Your task to perform on an android device: When is my next appointment? Image 0: 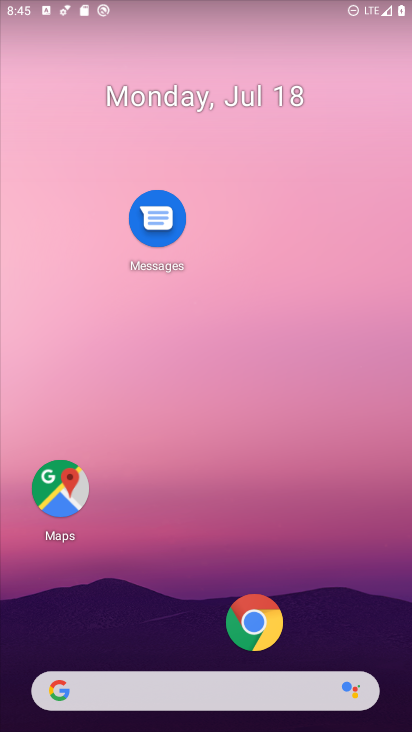
Step 0: drag from (267, 593) to (269, 319)
Your task to perform on an android device: When is my next appointment? Image 1: 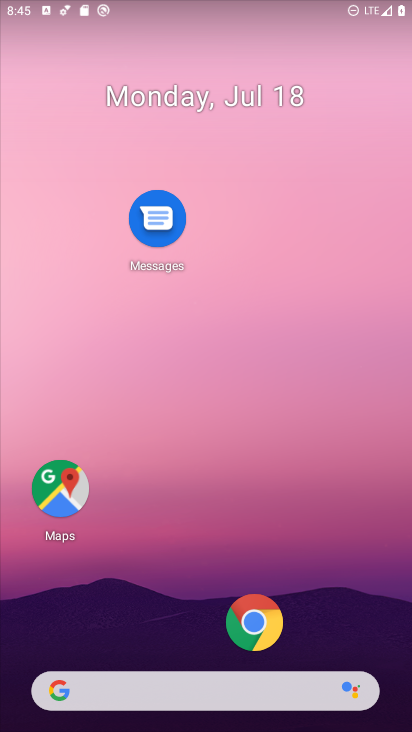
Step 1: drag from (186, 639) to (274, 191)
Your task to perform on an android device: When is my next appointment? Image 2: 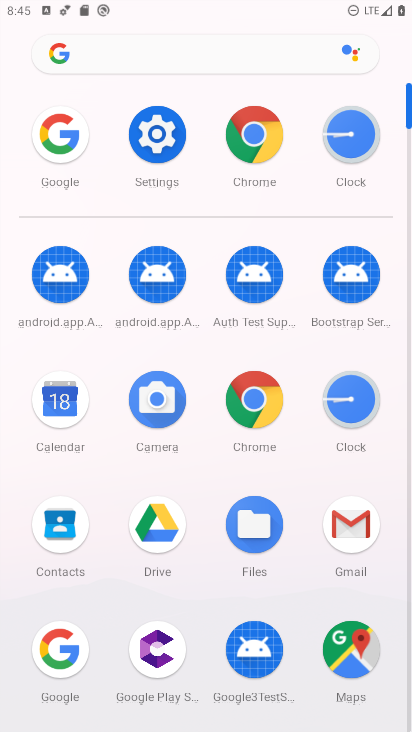
Step 2: click (56, 424)
Your task to perform on an android device: When is my next appointment? Image 3: 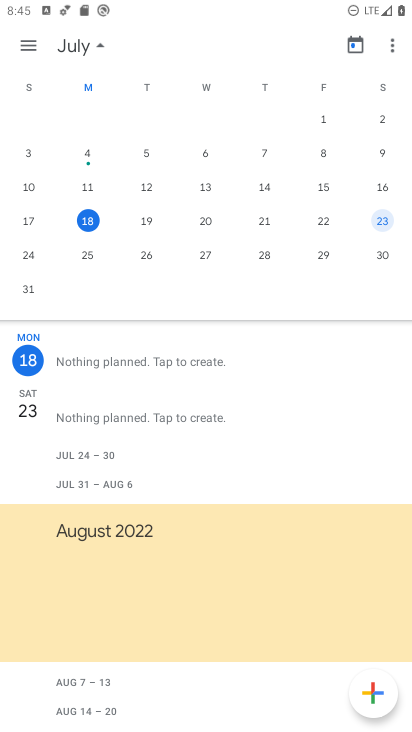
Step 3: click (32, 45)
Your task to perform on an android device: When is my next appointment? Image 4: 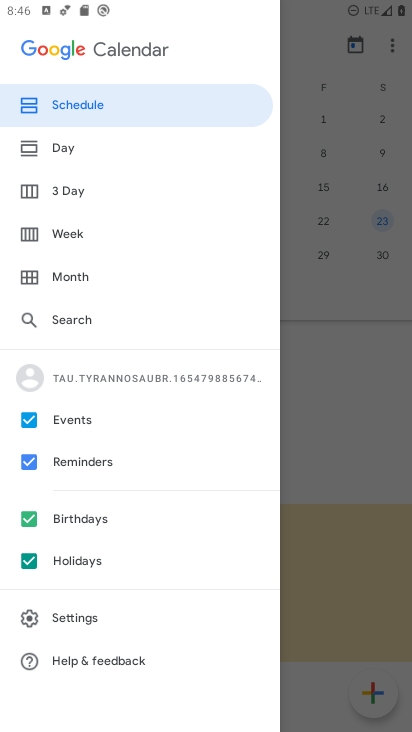
Step 4: click (23, 554)
Your task to perform on an android device: When is my next appointment? Image 5: 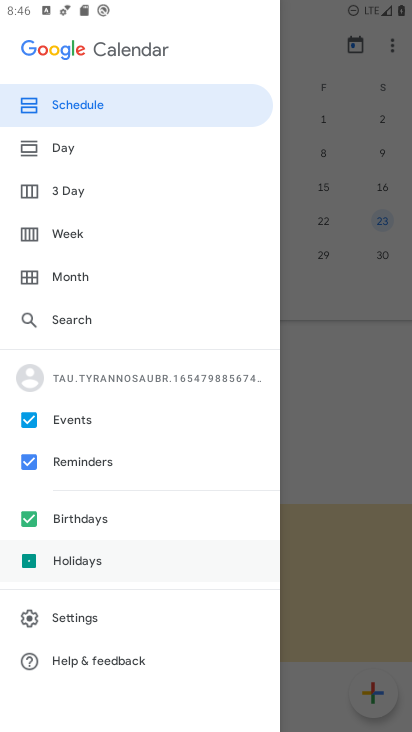
Step 5: click (31, 525)
Your task to perform on an android device: When is my next appointment? Image 6: 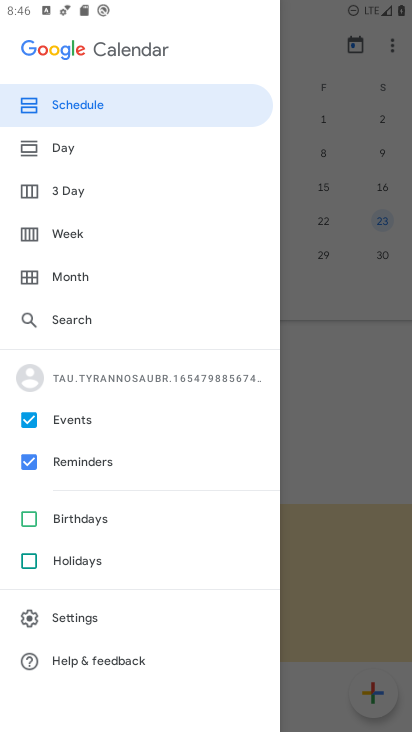
Step 6: click (336, 447)
Your task to perform on an android device: When is my next appointment? Image 7: 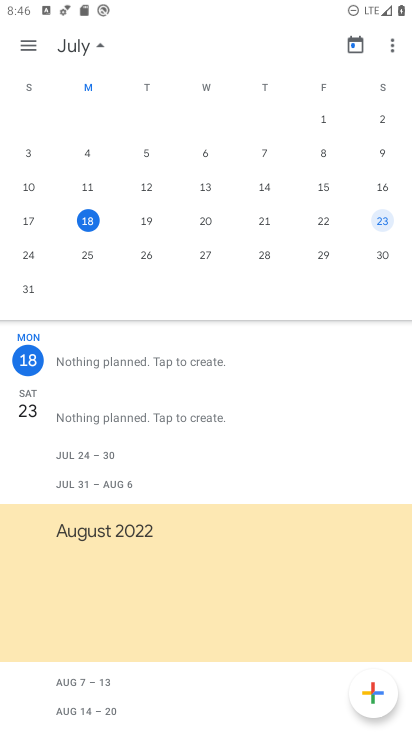
Step 7: task complete